Your task to perform on an android device: set default search engine in the chrome app Image 0: 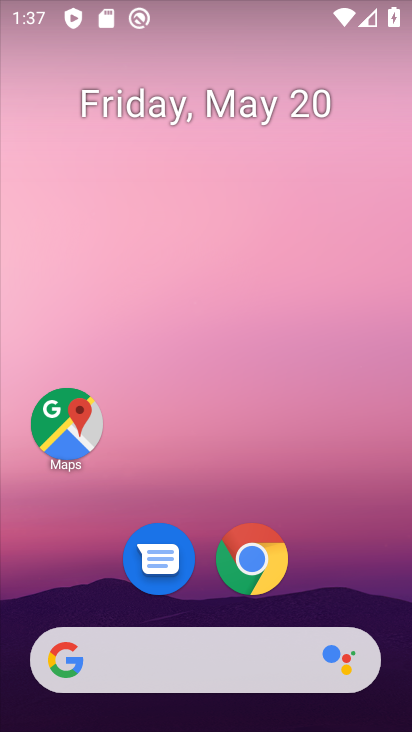
Step 0: click (229, 565)
Your task to perform on an android device: set default search engine in the chrome app Image 1: 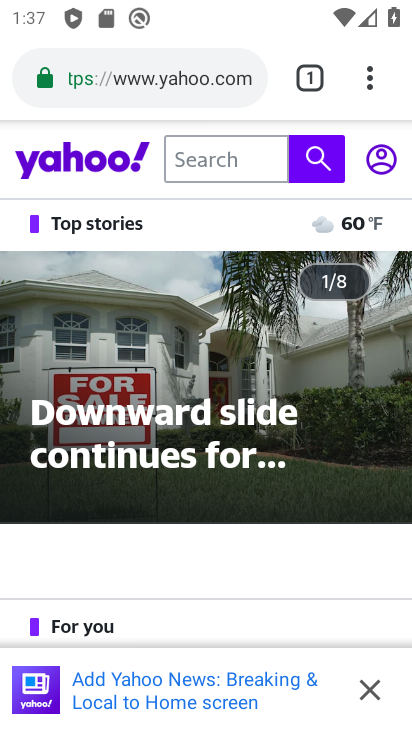
Step 1: click (374, 72)
Your task to perform on an android device: set default search engine in the chrome app Image 2: 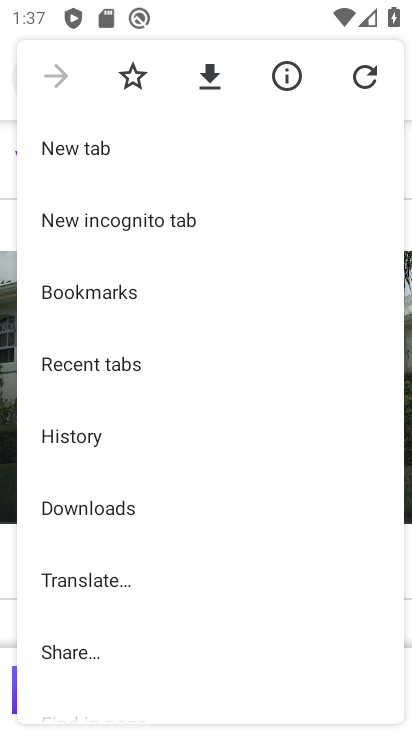
Step 2: drag from (100, 600) to (177, 204)
Your task to perform on an android device: set default search engine in the chrome app Image 3: 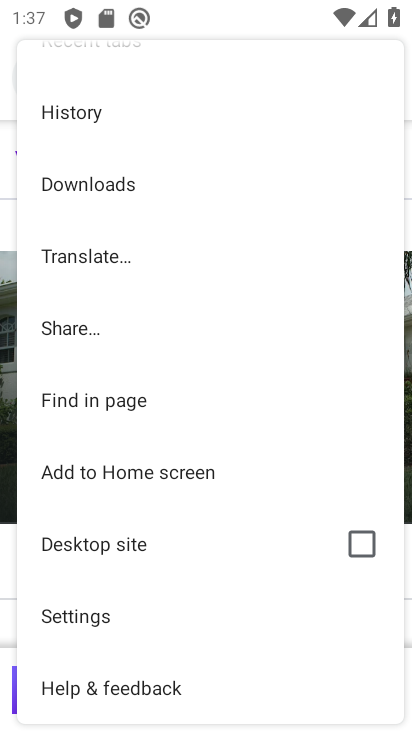
Step 3: click (58, 626)
Your task to perform on an android device: set default search engine in the chrome app Image 4: 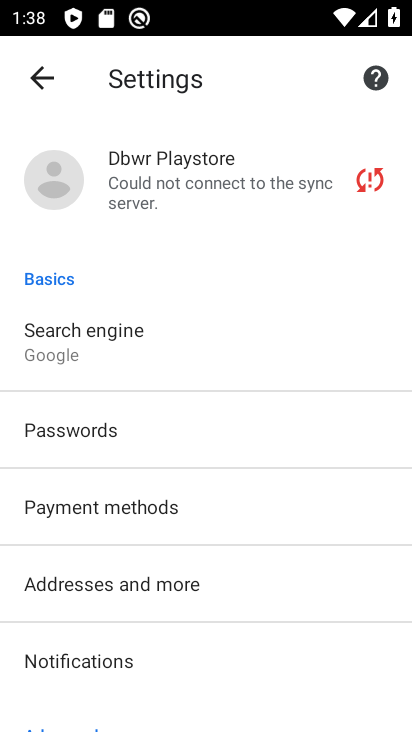
Step 4: drag from (155, 652) to (202, 291)
Your task to perform on an android device: set default search engine in the chrome app Image 5: 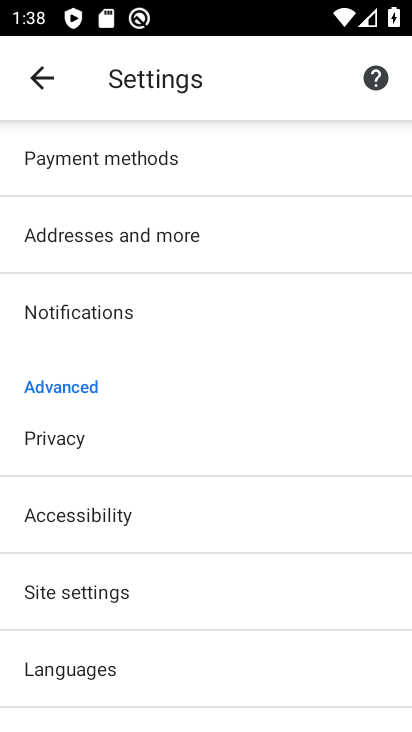
Step 5: drag from (166, 256) to (164, 704)
Your task to perform on an android device: set default search engine in the chrome app Image 6: 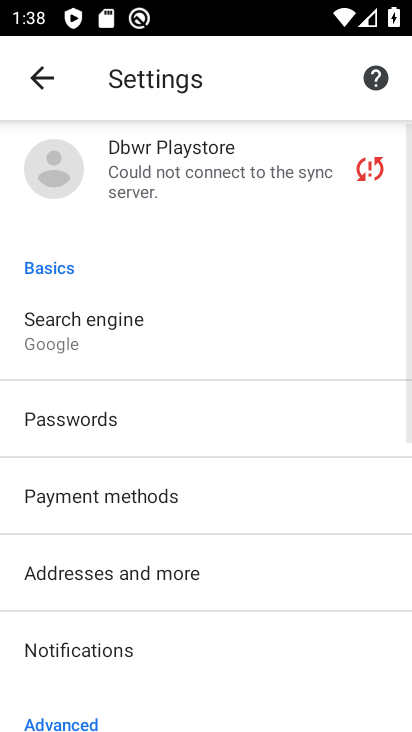
Step 6: click (114, 337)
Your task to perform on an android device: set default search engine in the chrome app Image 7: 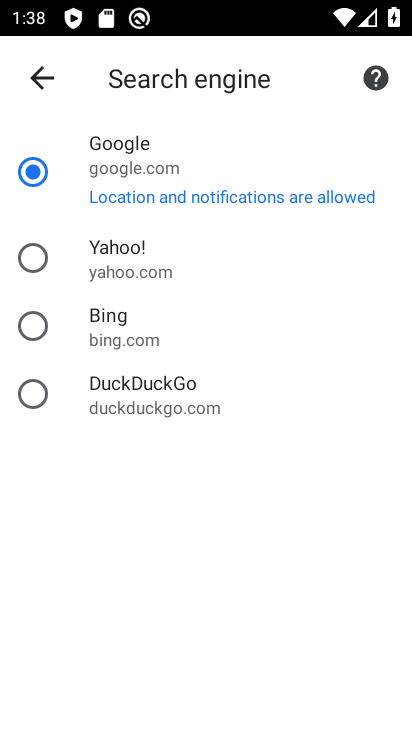
Step 7: click (107, 254)
Your task to perform on an android device: set default search engine in the chrome app Image 8: 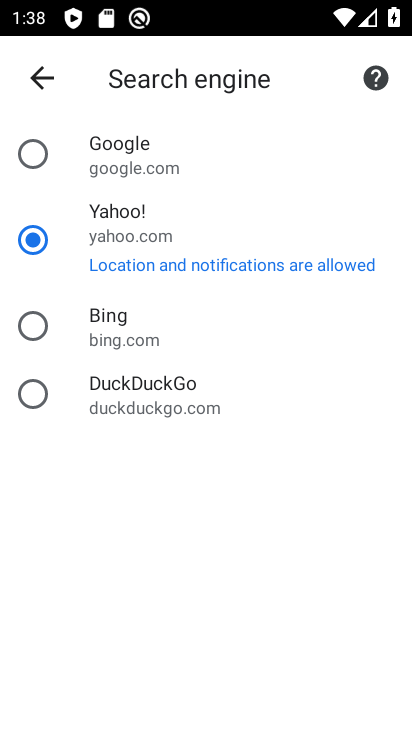
Step 8: task complete